Your task to perform on an android device: Go to settings Image 0: 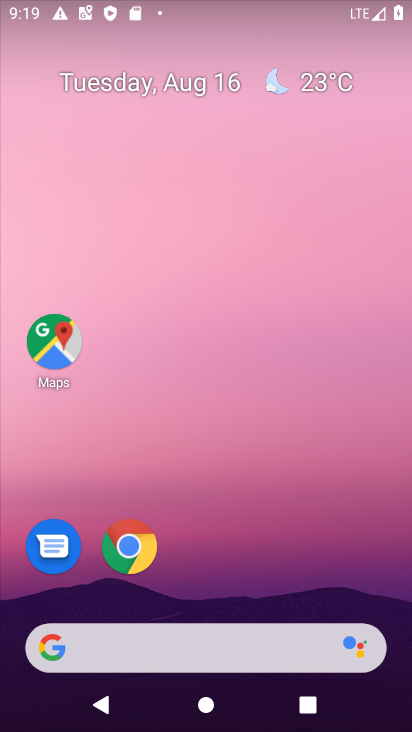
Step 0: drag from (211, 533) to (274, 0)
Your task to perform on an android device: Go to settings Image 1: 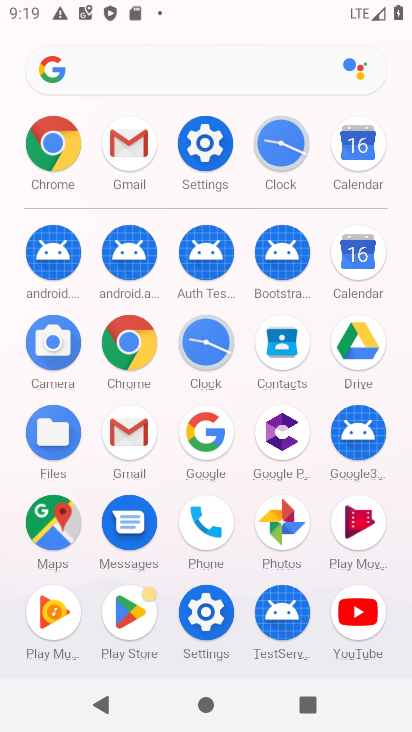
Step 1: click (201, 143)
Your task to perform on an android device: Go to settings Image 2: 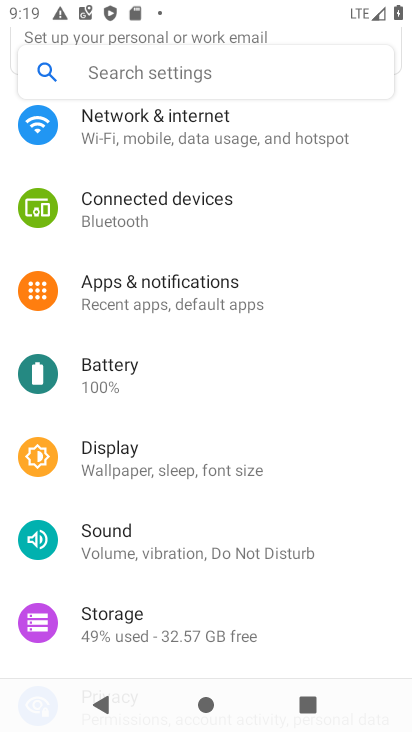
Step 2: task complete